Your task to perform on an android device: Open Google Chrome and click the shortcut for Amazon.com Image 0: 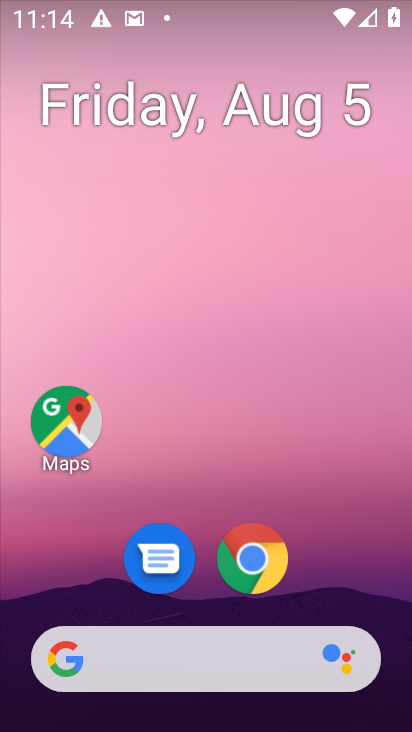
Step 0: press home button
Your task to perform on an android device: Open Google Chrome and click the shortcut for Amazon.com Image 1: 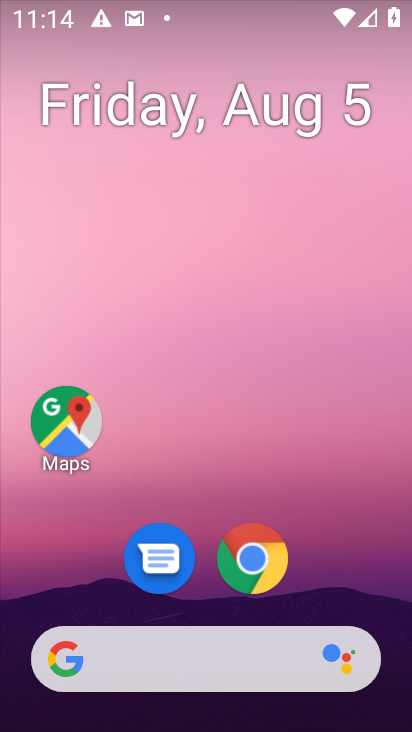
Step 1: drag from (362, 571) to (352, 257)
Your task to perform on an android device: Open Google Chrome and click the shortcut for Amazon.com Image 2: 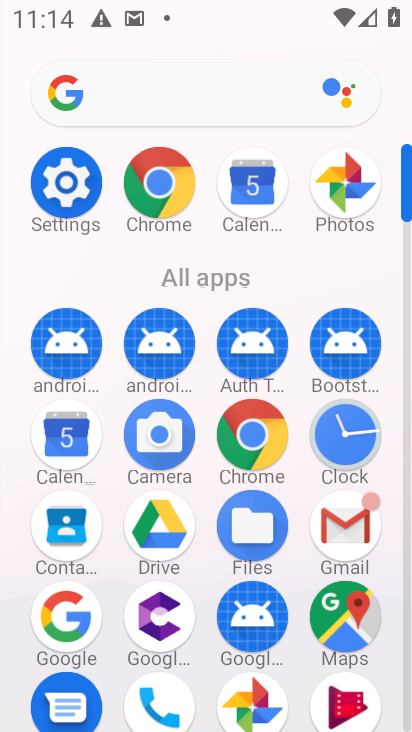
Step 2: click (263, 429)
Your task to perform on an android device: Open Google Chrome and click the shortcut for Amazon.com Image 3: 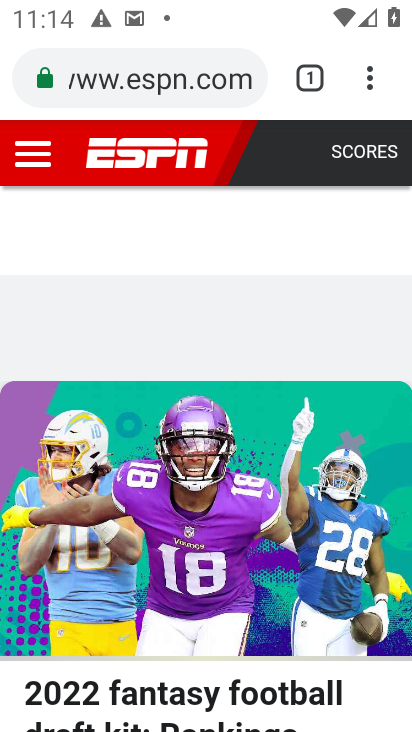
Step 3: press back button
Your task to perform on an android device: Open Google Chrome and click the shortcut for Amazon.com Image 4: 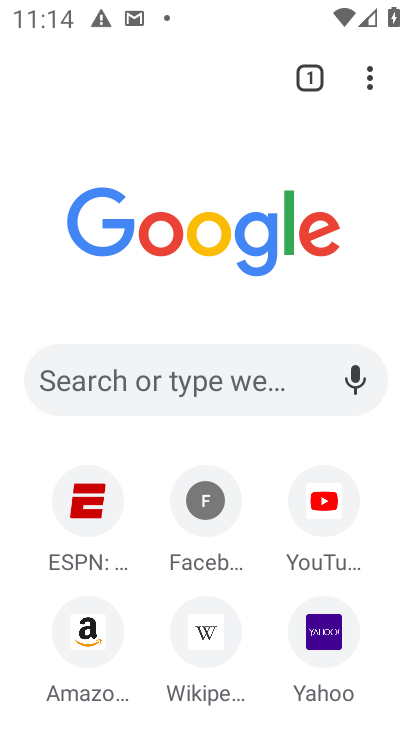
Step 4: click (90, 635)
Your task to perform on an android device: Open Google Chrome and click the shortcut for Amazon.com Image 5: 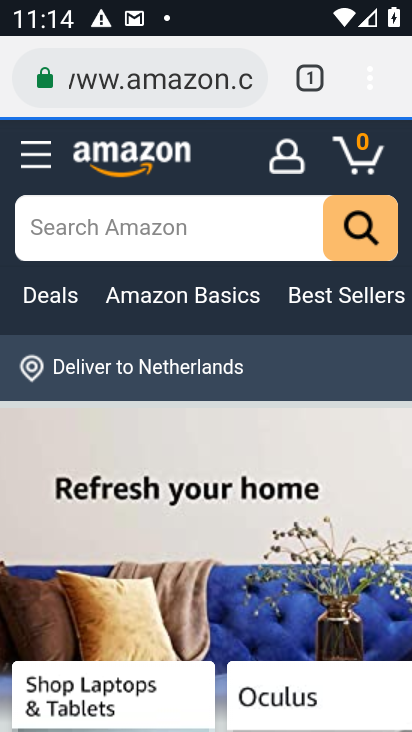
Step 5: task complete